Your task to perform on an android device: Go to eBay Image 0: 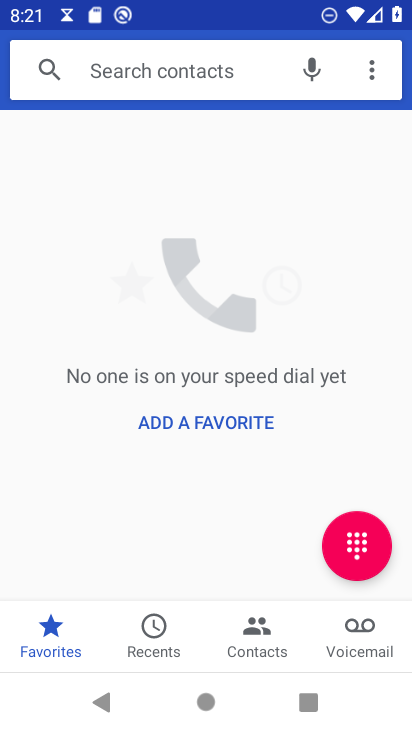
Step 0: press home button
Your task to perform on an android device: Go to eBay Image 1: 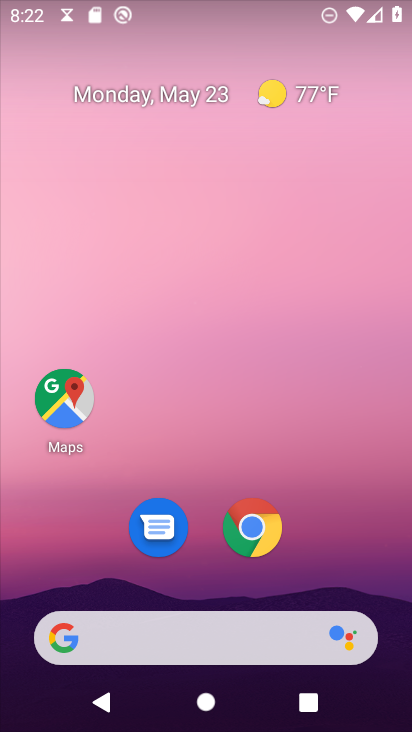
Step 1: drag from (287, 680) to (287, 185)
Your task to perform on an android device: Go to eBay Image 2: 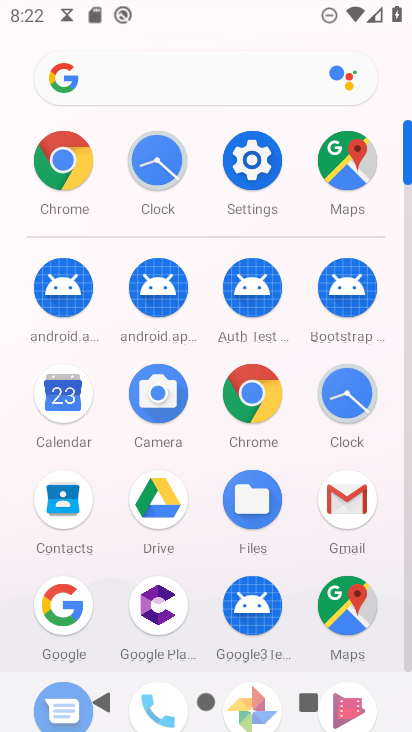
Step 2: click (60, 174)
Your task to perform on an android device: Go to eBay Image 3: 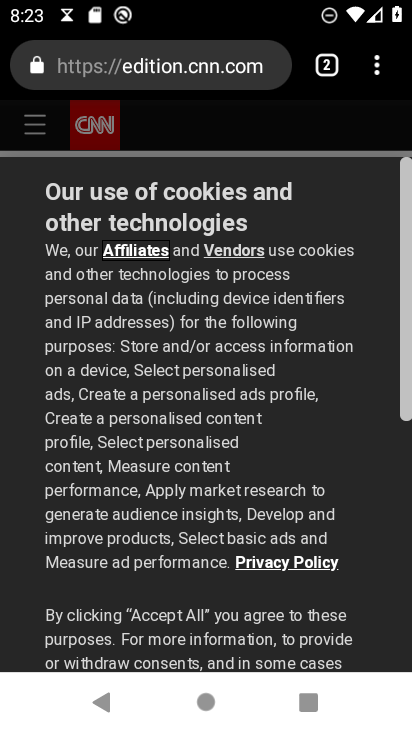
Step 3: drag from (240, 513) to (266, 129)
Your task to perform on an android device: Go to eBay Image 4: 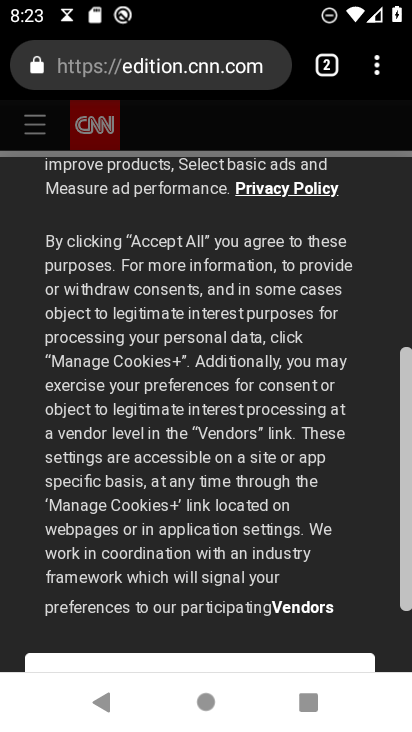
Step 4: drag from (199, 458) to (215, 273)
Your task to perform on an android device: Go to eBay Image 5: 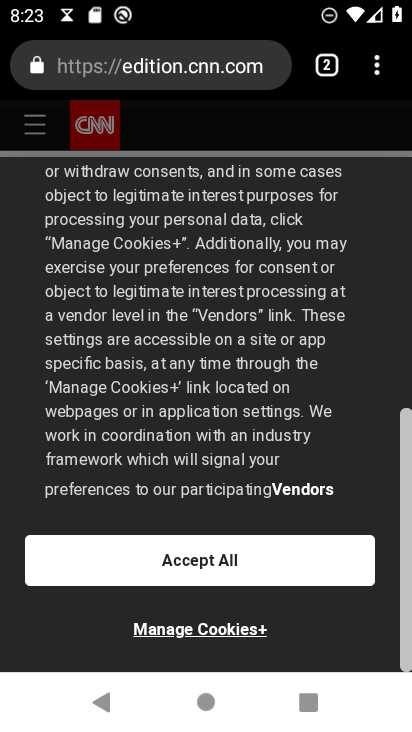
Step 5: click (180, 556)
Your task to perform on an android device: Go to eBay Image 6: 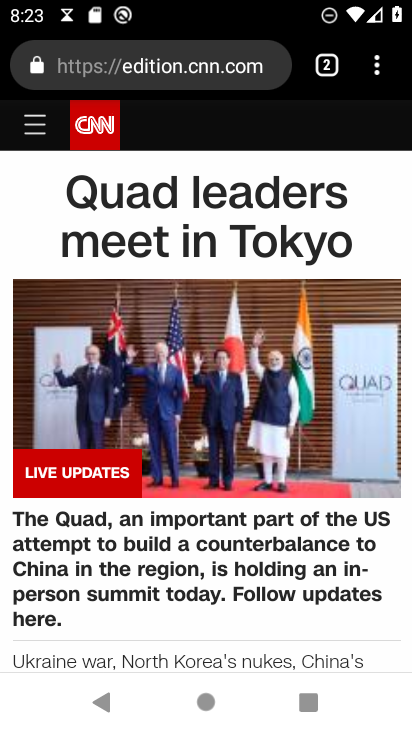
Step 6: task complete